Your task to perform on an android device: Open Wikipedia Image 0: 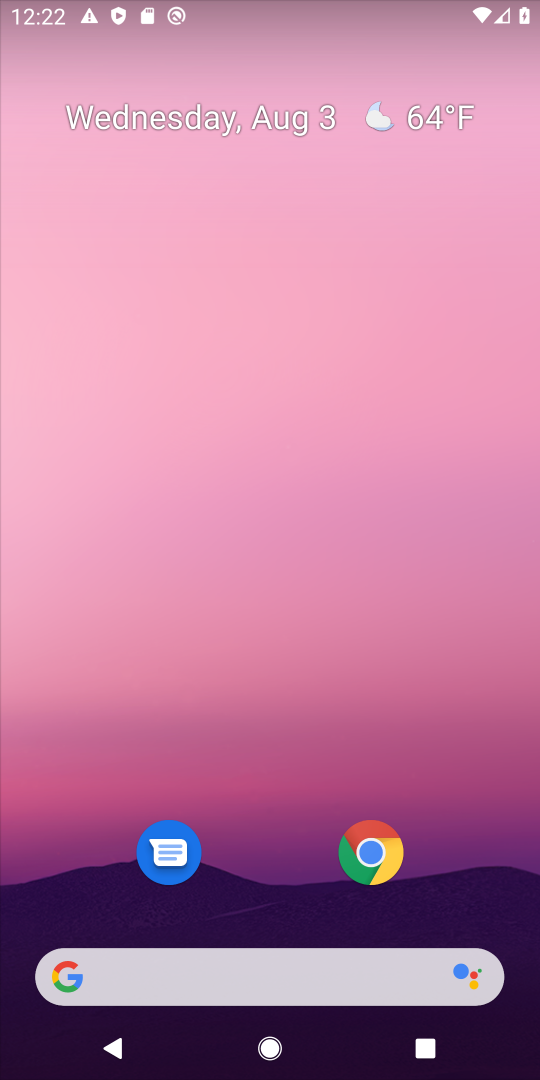
Step 0: click (367, 850)
Your task to perform on an android device: Open Wikipedia Image 1: 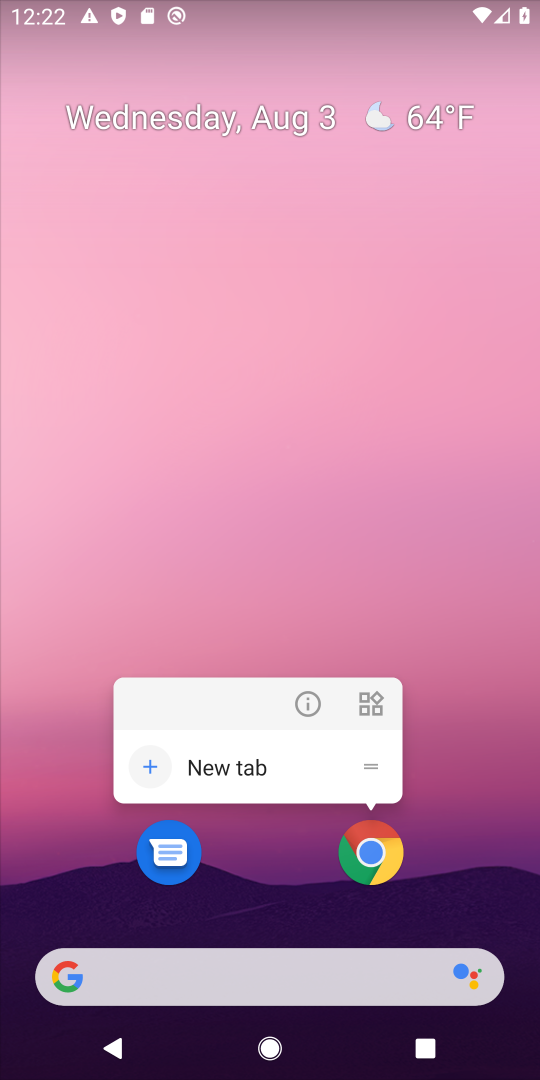
Step 1: click (365, 845)
Your task to perform on an android device: Open Wikipedia Image 2: 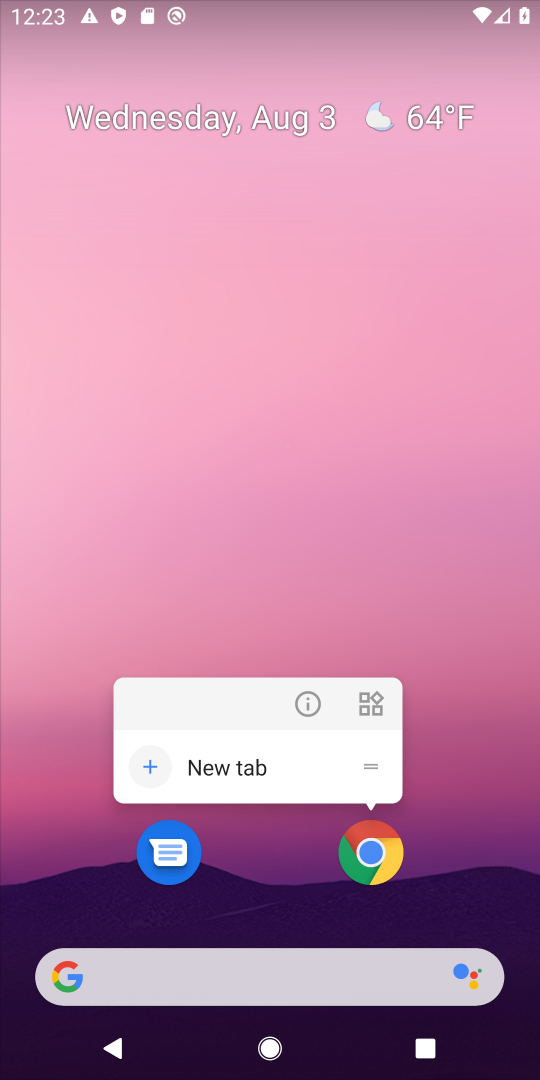
Step 2: click (366, 854)
Your task to perform on an android device: Open Wikipedia Image 3: 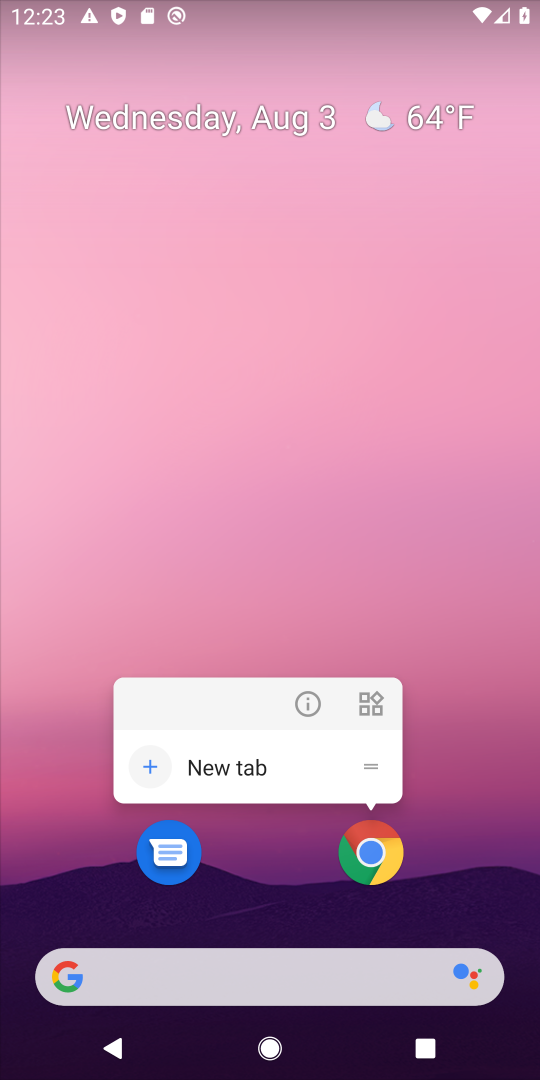
Step 3: click (381, 848)
Your task to perform on an android device: Open Wikipedia Image 4: 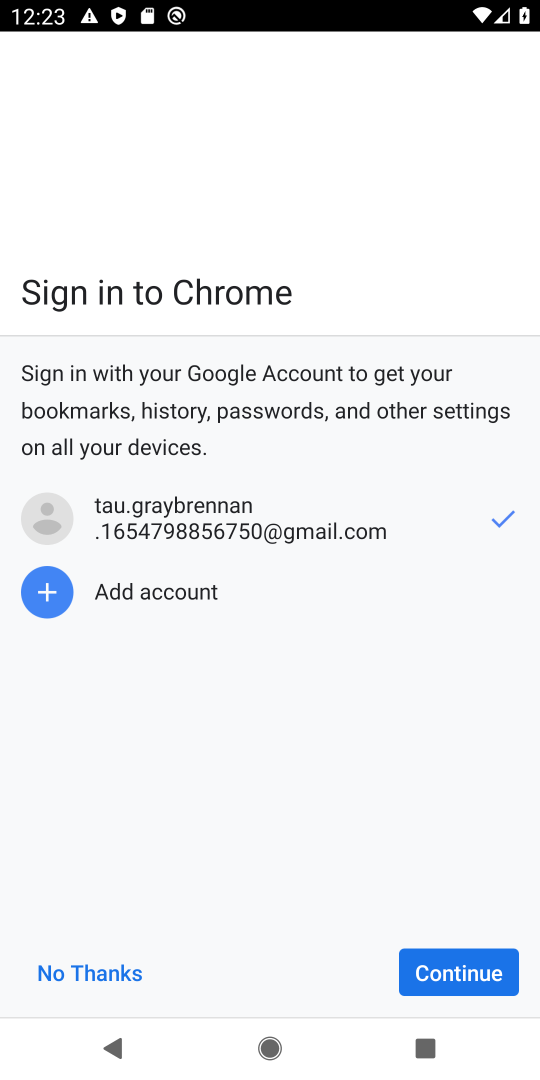
Step 4: click (465, 957)
Your task to perform on an android device: Open Wikipedia Image 5: 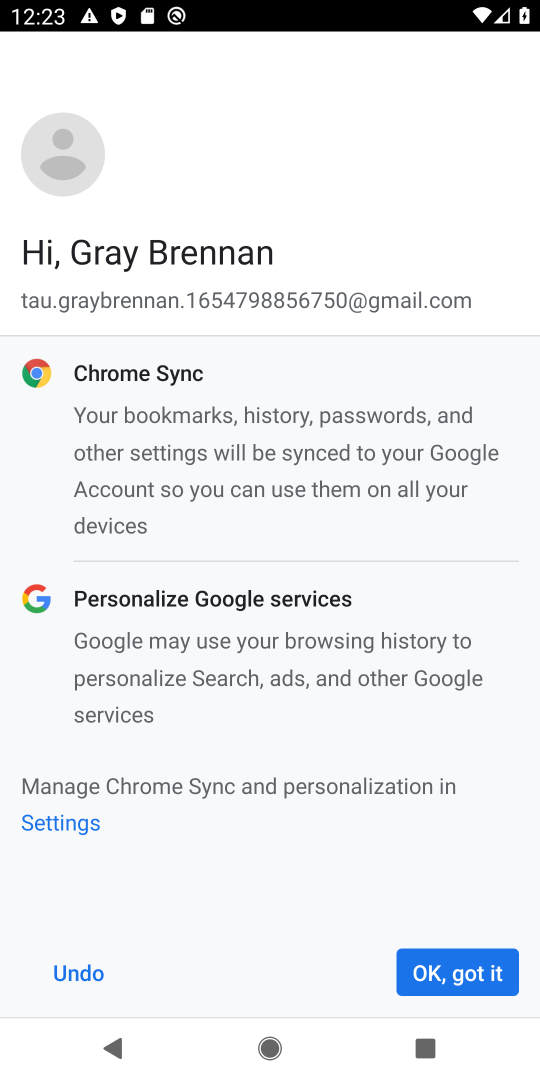
Step 5: click (463, 974)
Your task to perform on an android device: Open Wikipedia Image 6: 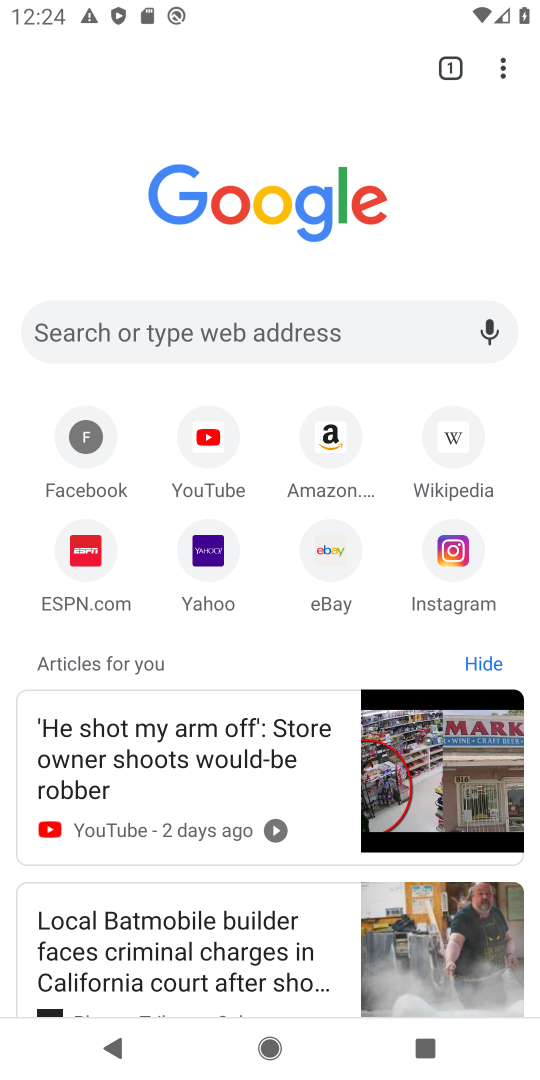
Step 6: click (452, 429)
Your task to perform on an android device: Open Wikipedia Image 7: 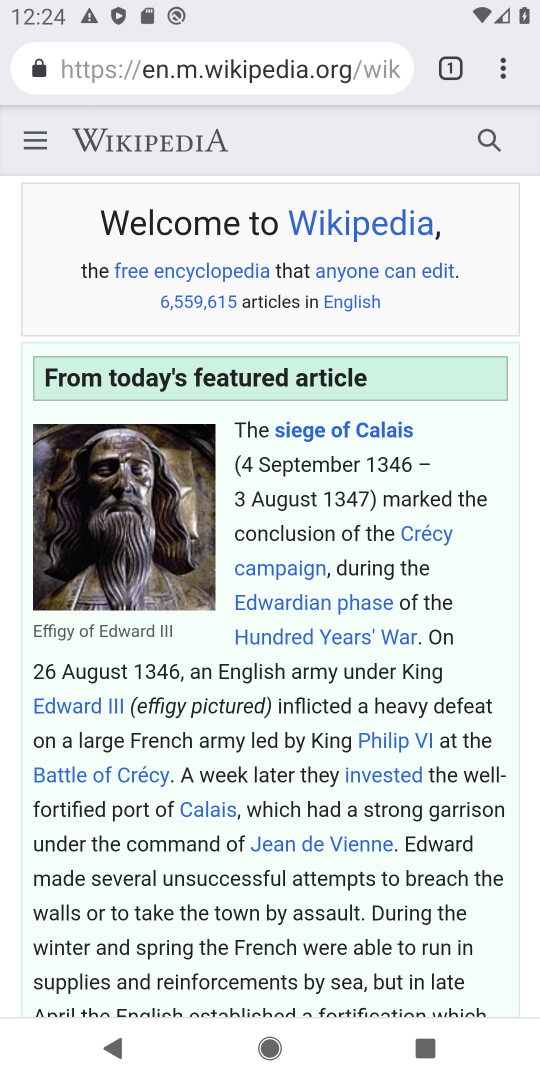
Step 7: task complete